Your task to perform on an android device: Open Maps and search for coffee Image 0: 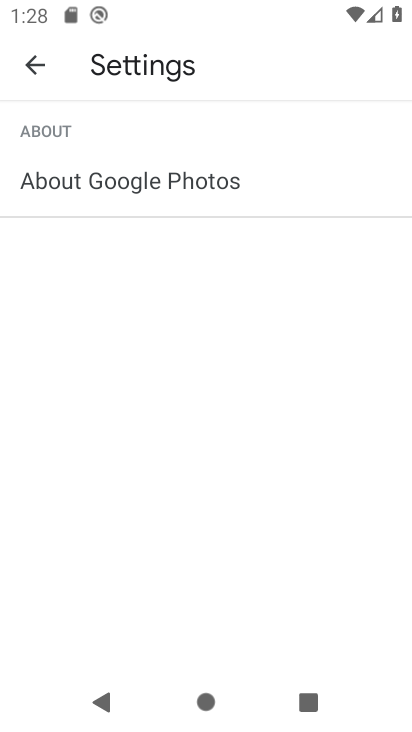
Step 0: press home button
Your task to perform on an android device: Open Maps and search for coffee Image 1: 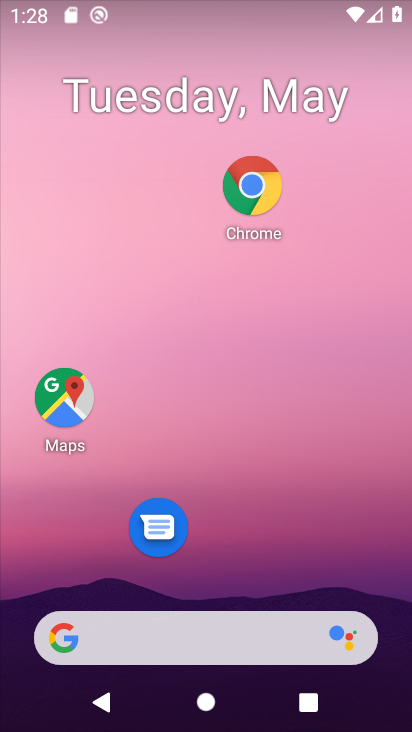
Step 1: click (51, 397)
Your task to perform on an android device: Open Maps and search for coffee Image 2: 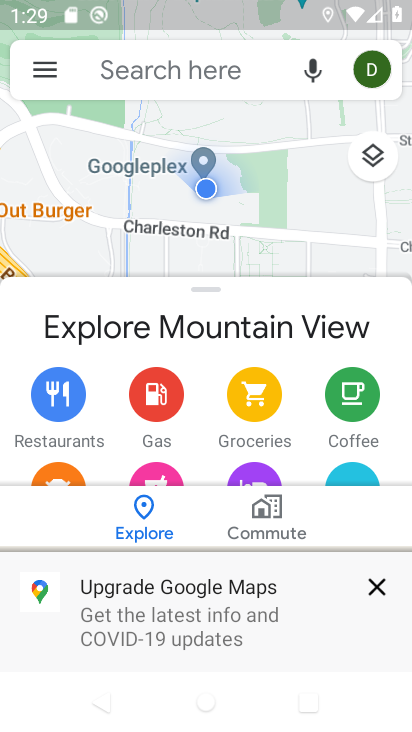
Step 2: click (118, 57)
Your task to perform on an android device: Open Maps and search for coffee Image 3: 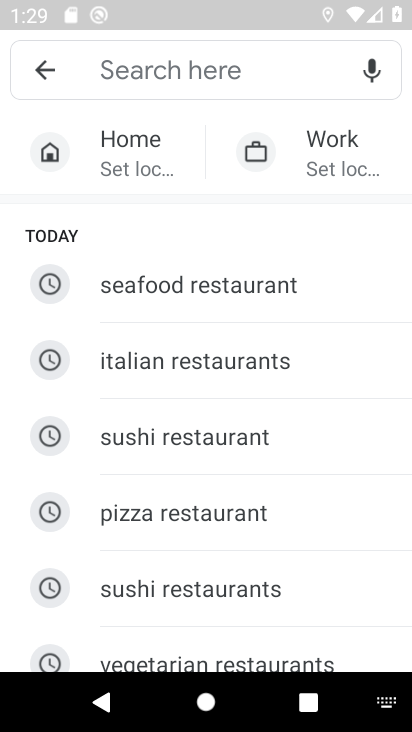
Step 3: type "coffee"
Your task to perform on an android device: Open Maps and search for coffee Image 4: 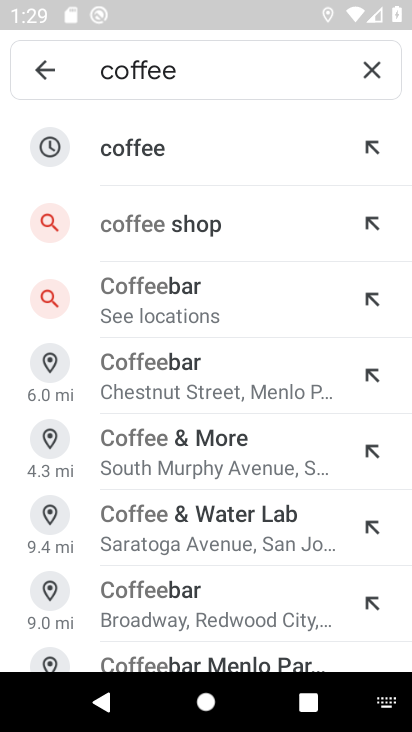
Step 4: click (157, 143)
Your task to perform on an android device: Open Maps and search for coffee Image 5: 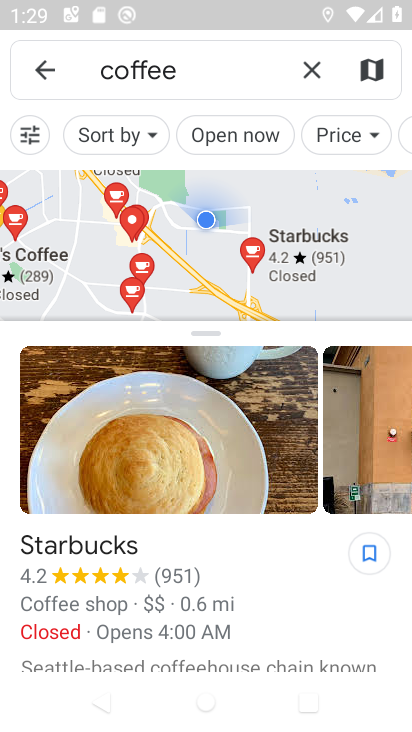
Step 5: task complete